Your task to perform on an android device: change the clock display to digital Image 0: 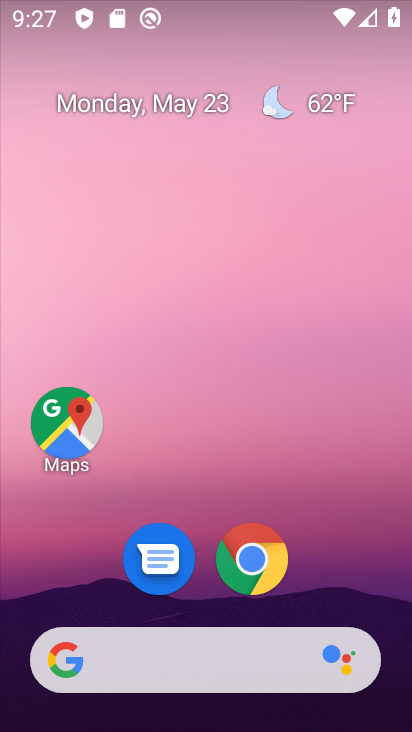
Step 0: drag from (85, 576) to (200, 149)
Your task to perform on an android device: change the clock display to digital Image 1: 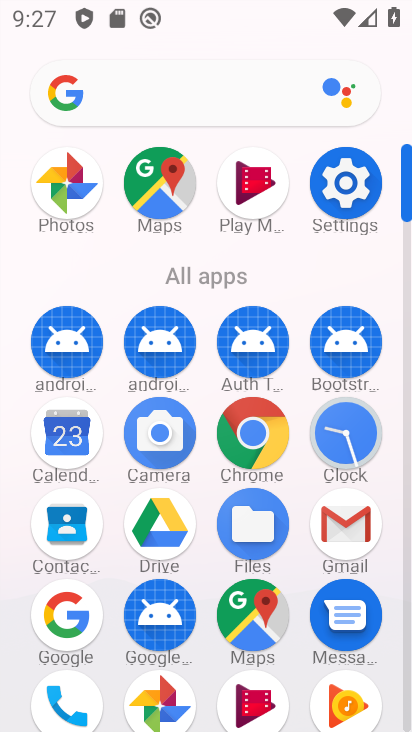
Step 1: click (357, 434)
Your task to perform on an android device: change the clock display to digital Image 2: 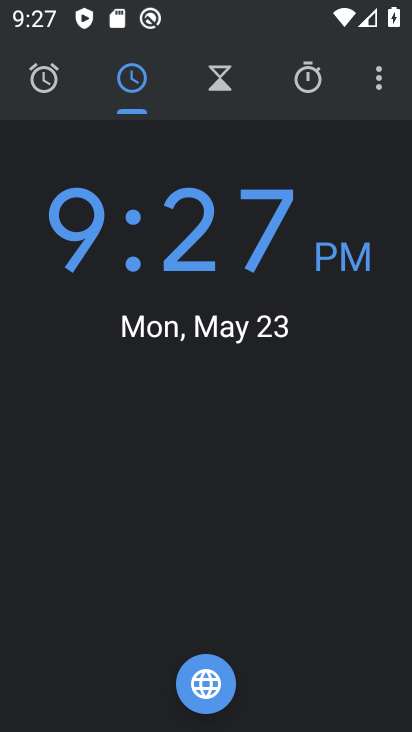
Step 2: click (374, 88)
Your task to perform on an android device: change the clock display to digital Image 3: 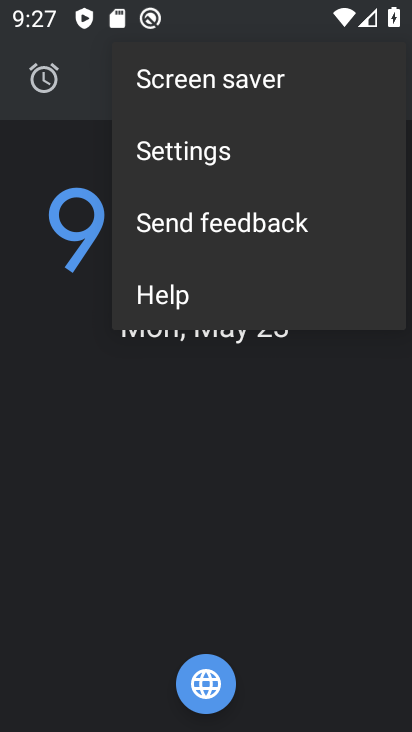
Step 3: click (342, 150)
Your task to perform on an android device: change the clock display to digital Image 4: 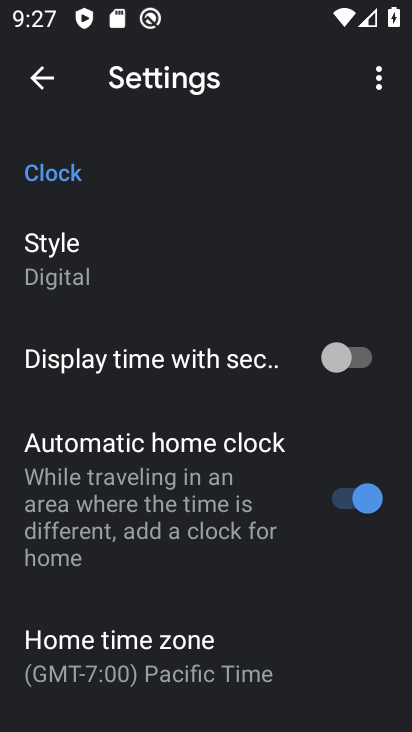
Step 4: task complete